Your task to perform on an android device: Go to ESPN.com Image 0: 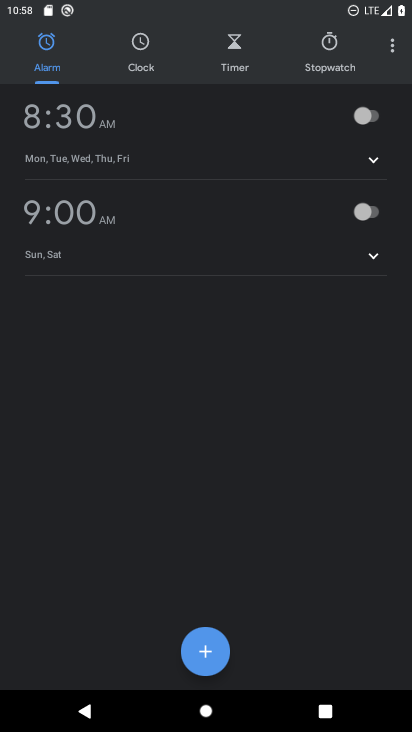
Step 0: press home button
Your task to perform on an android device: Go to ESPN.com Image 1: 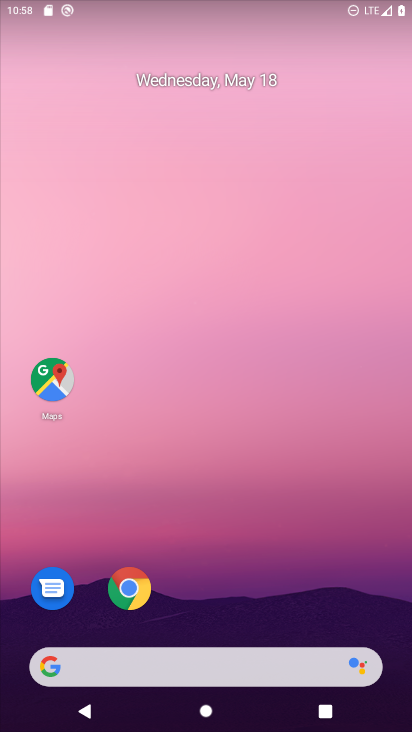
Step 1: drag from (363, 601) to (345, 635)
Your task to perform on an android device: Go to ESPN.com Image 2: 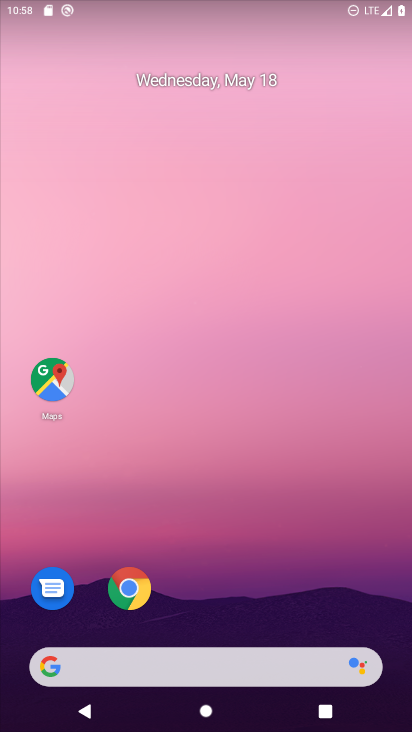
Step 2: click (116, 589)
Your task to perform on an android device: Go to ESPN.com Image 3: 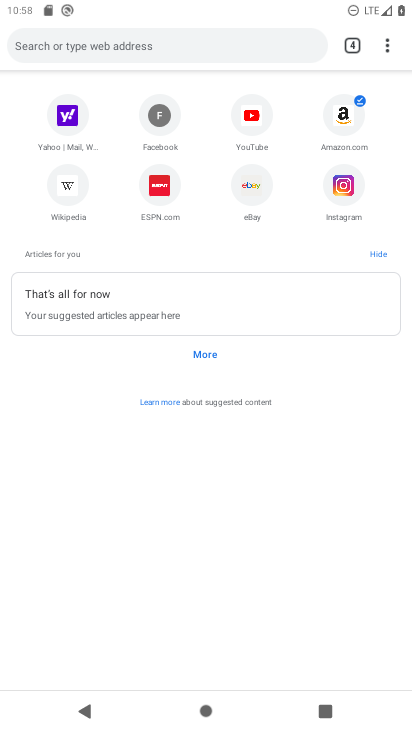
Step 3: click (164, 185)
Your task to perform on an android device: Go to ESPN.com Image 4: 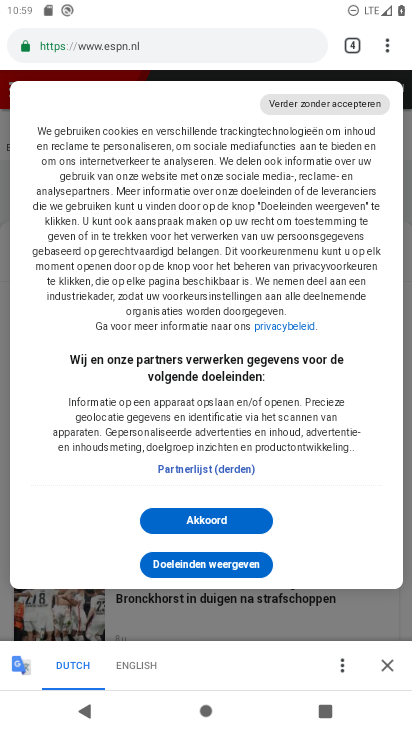
Step 4: task complete